Your task to perform on an android device: open app "Indeed Job Search" (install if not already installed), go to login, and select forgot password Image 0: 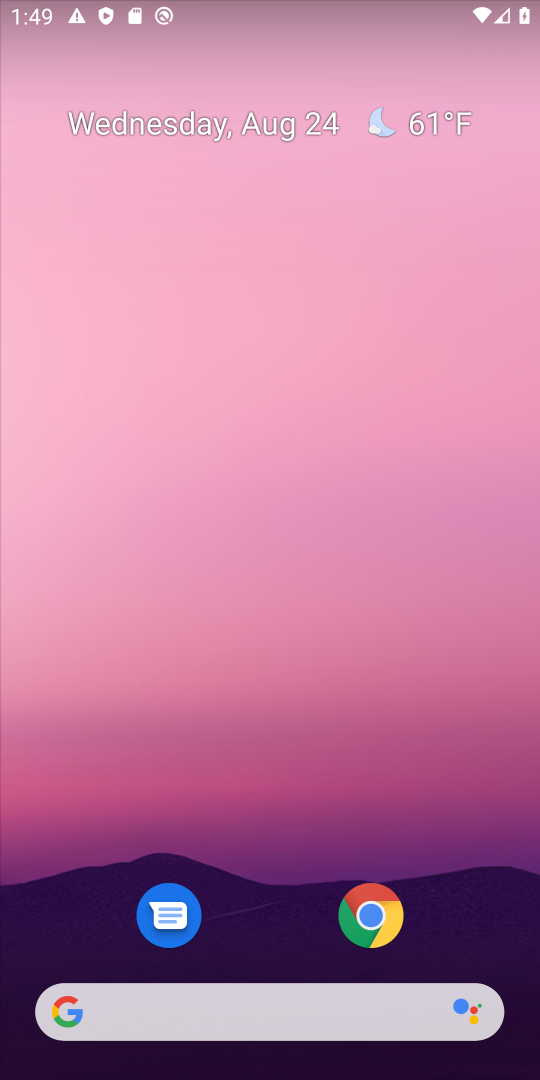
Step 0: drag from (259, 878) to (261, 334)
Your task to perform on an android device: open app "Indeed Job Search" (install if not already installed), go to login, and select forgot password Image 1: 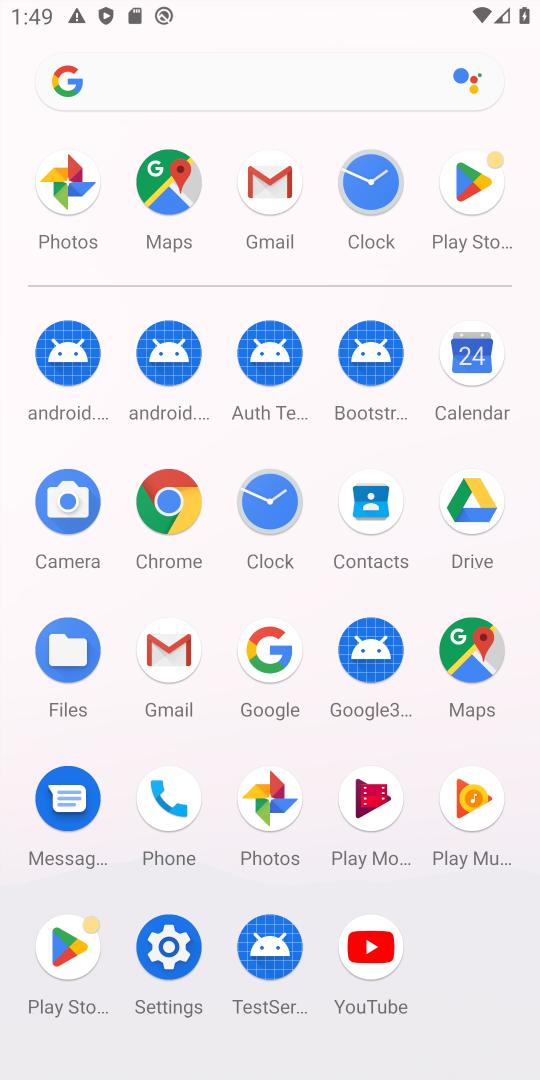
Step 1: click (478, 180)
Your task to perform on an android device: open app "Indeed Job Search" (install if not already installed), go to login, and select forgot password Image 2: 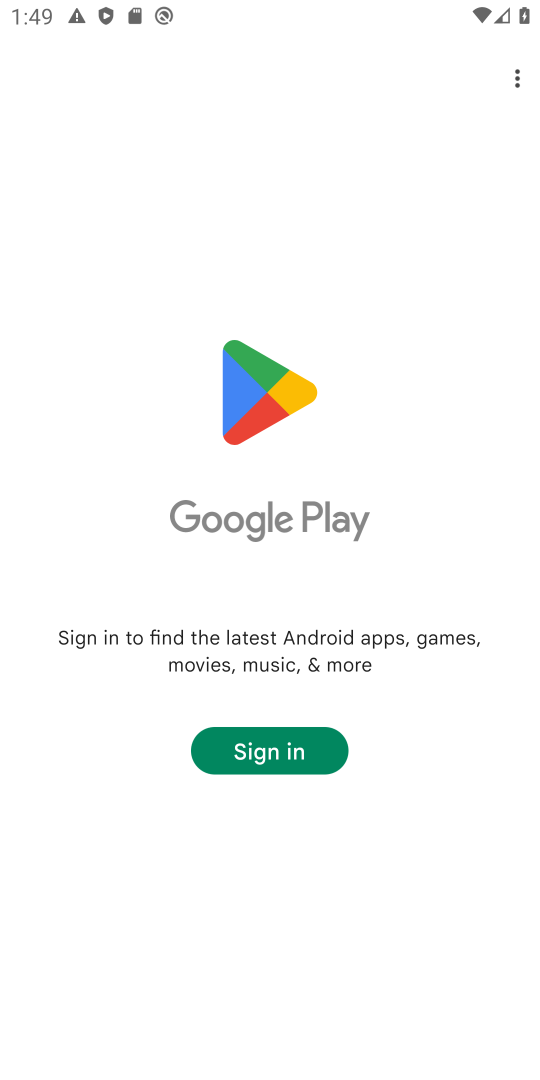
Step 2: task complete